Your task to perform on an android device: Open Wikipedia Image 0: 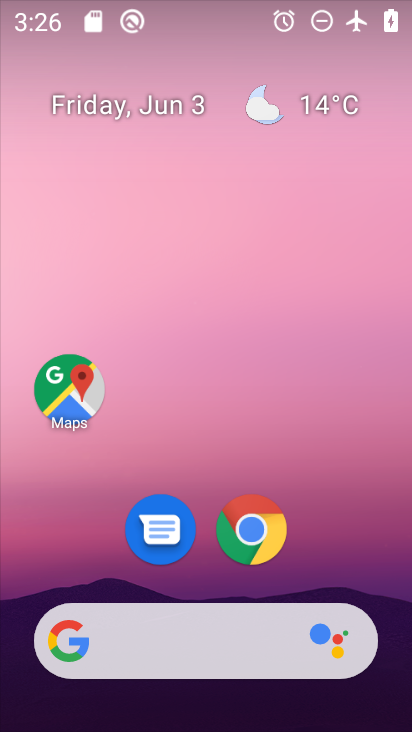
Step 0: drag from (369, 558) to (362, 314)
Your task to perform on an android device: Open Wikipedia Image 1: 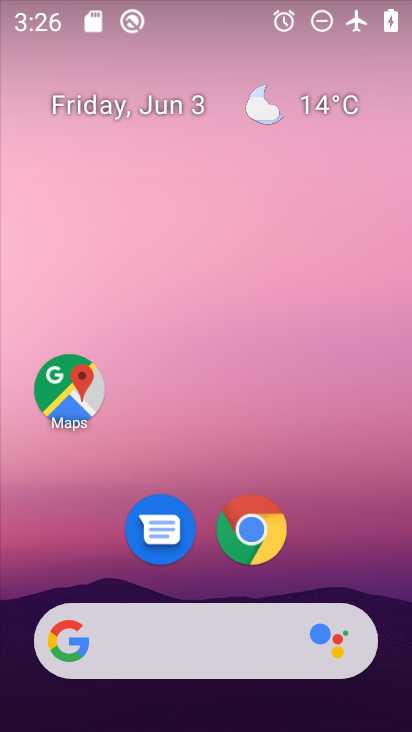
Step 1: drag from (363, 561) to (332, 119)
Your task to perform on an android device: Open Wikipedia Image 2: 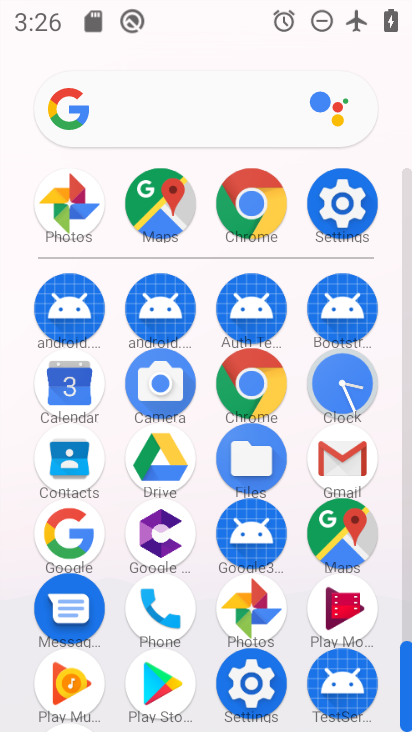
Step 2: click (269, 391)
Your task to perform on an android device: Open Wikipedia Image 3: 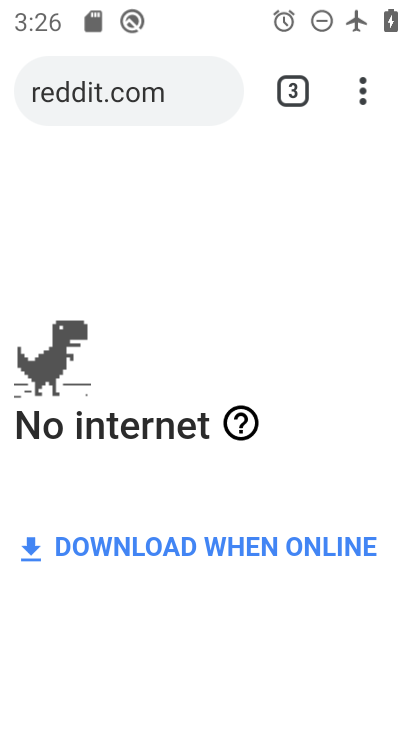
Step 3: click (164, 100)
Your task to perform on an android device: Open Wikipedia Image 4: 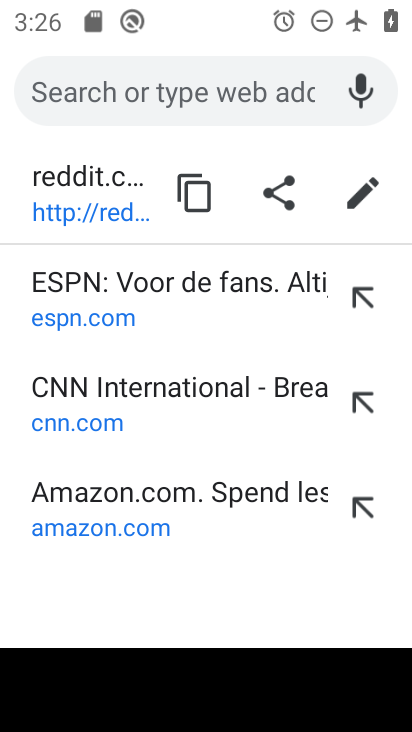
Step 4: type "wikipedia"
Your task to perform on an android device: Open Wikipedia Image 5: 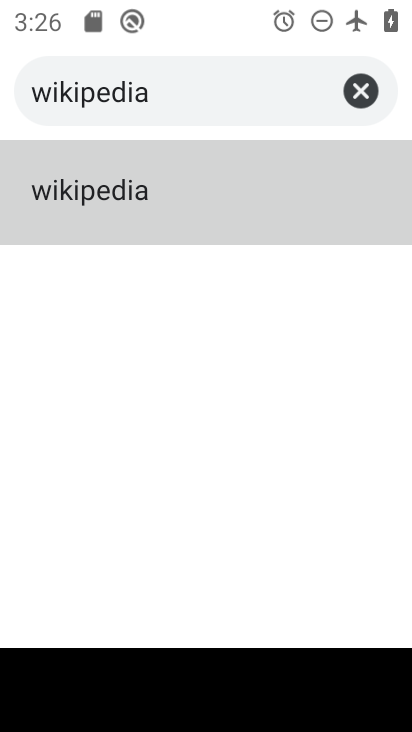
Step 5: click (248, 178)
Your task to perform on an android device: Open Wikipedia Image 6: 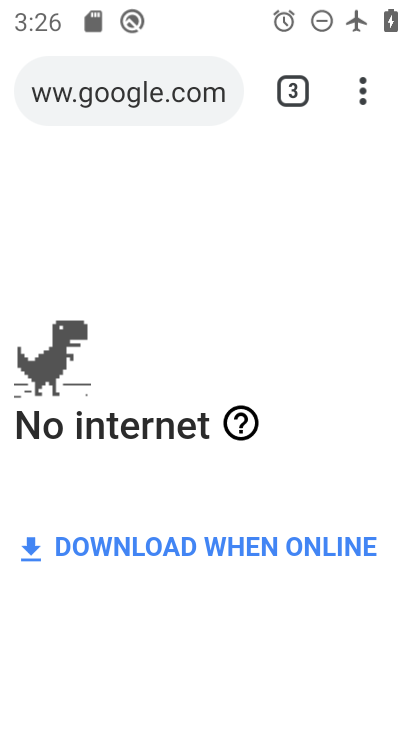
Step 6: task complete